Your task to perform on an android device: Open Amazon Image 0: 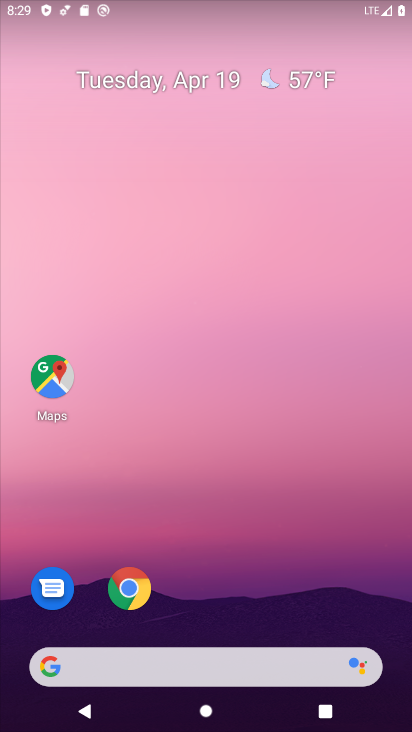
Step 0: click (112, 552)
Your task to perform on an android device: Open Amazon Image 1: 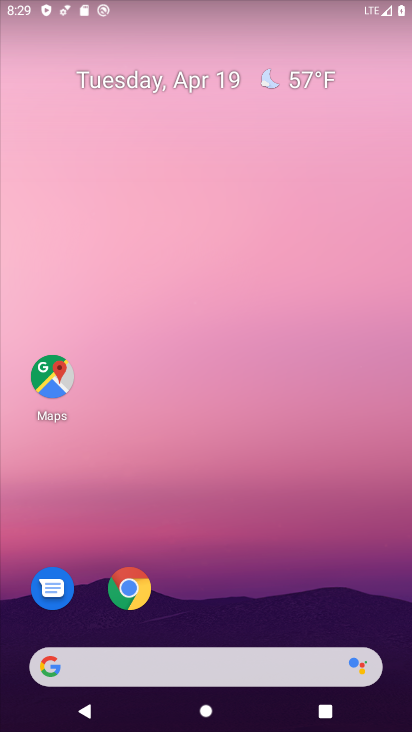
Step 1: click (133, 578)
Your task to perform on an android device: Open Amazon Image 2: 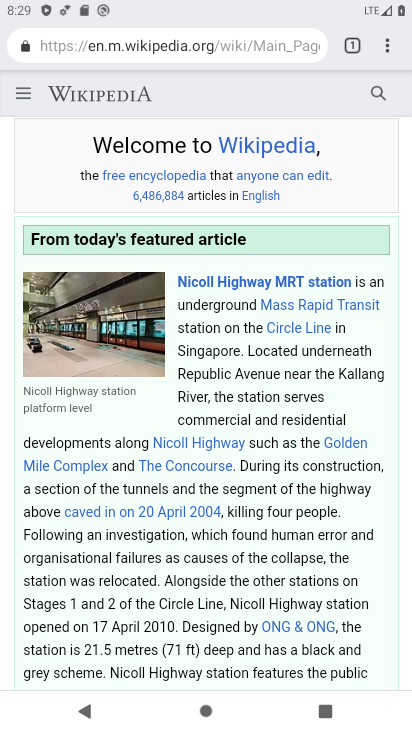
Step 2: click (190, 47)
Your task to perform on an android device: Open Amazon Image 3: 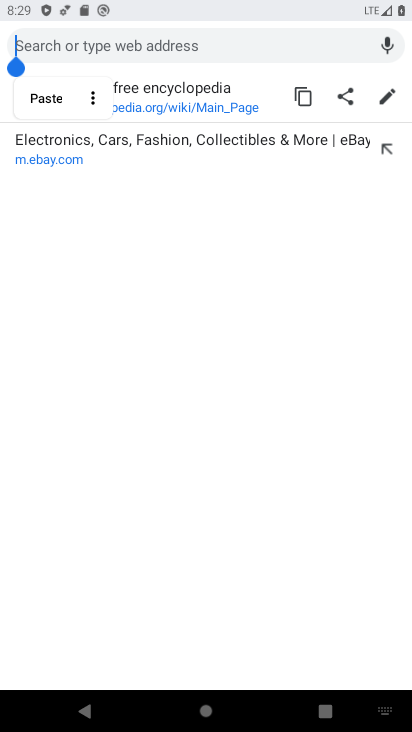
Step 3: click (146, 40)
Your task to perform on an android device: Open Amazon Image 4: 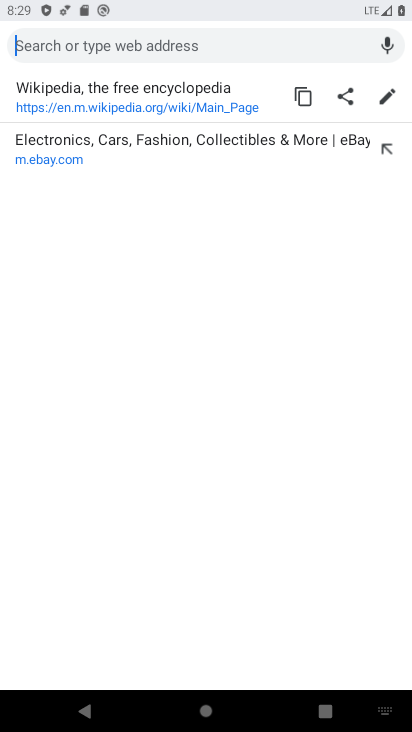
Step 4: type "amazon"
Your task to perform on an android device: Open Amazon Image 5: 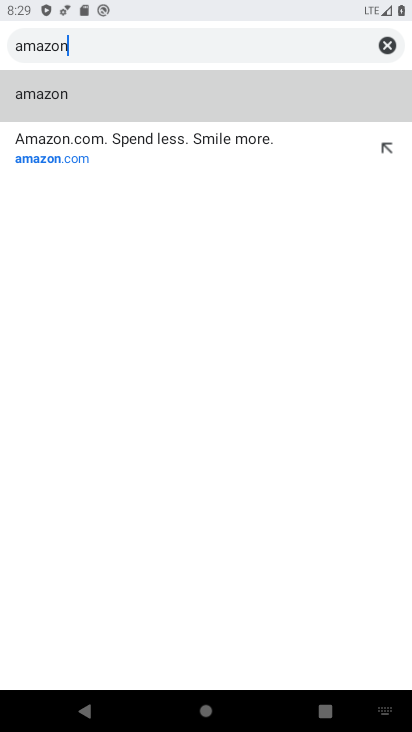
Step 5: click (53, 89)
Your task to perform on an android device: Open Amazon Image 6: 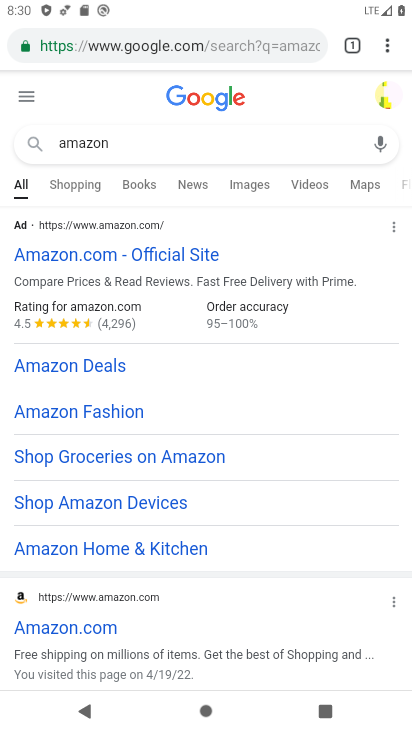
Step 6: click (117, 252)
Your task to perform on an android device: Open Amazon Image 7: 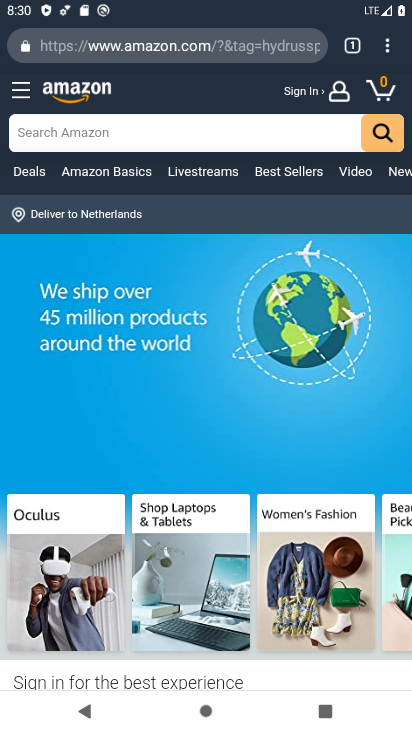
Step 7: task complete